Your task to perform on an android device: turn on javascript in the chrome app Image 0: 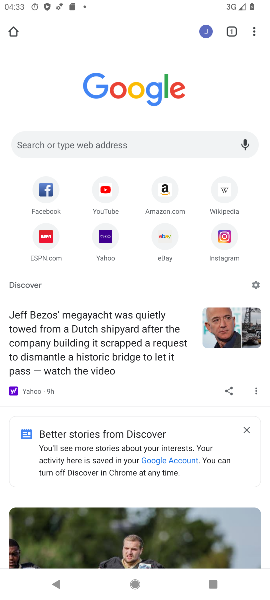
Step 0: click (250, 28)
Your task to perform on an android device: turn on javascript in the chrome app Image 1: 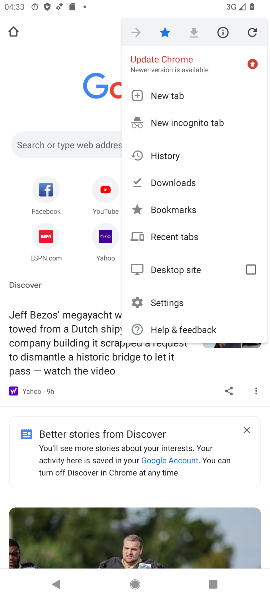
Step 1: click (173, 306)
Your task to perform on an android device: turn on javascript in the chrome app Image 2: 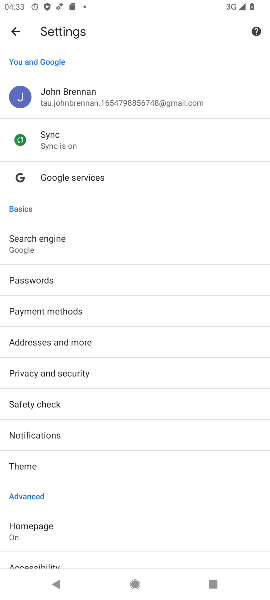
Step 2: drag from (105, 456) to (159, 95)
Your task to perform on an android device: turn on javascript in the chrome app Image 3: 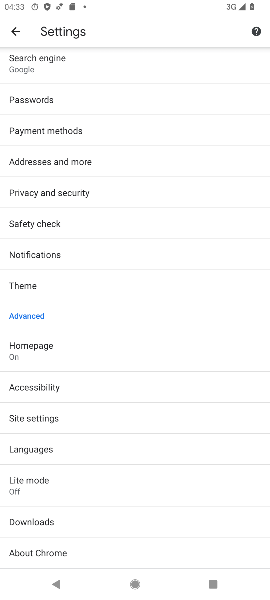
Step 3: click (19, 419)
Your task to perform on an android device: turn on javascript in the chrome app Image 4: 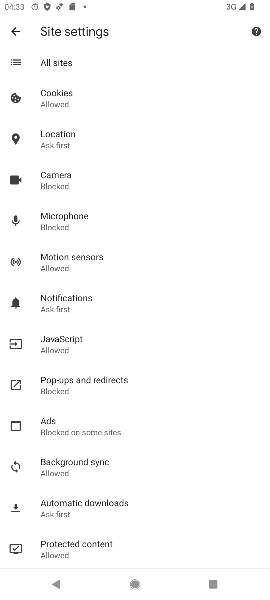
Step 4: click (66, 334)
Your task to perform on an android device: turn on javascript in the chrome app Image 5: 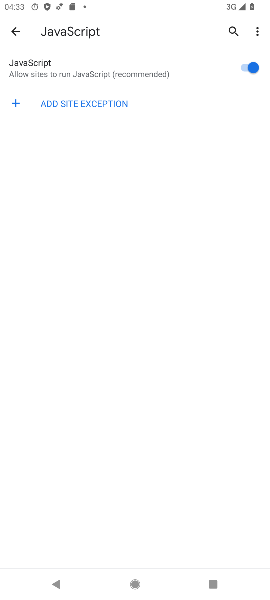
Step 5: task complete